Your task to perform on an android device: turn off smart reply in the gmail app Image 0: 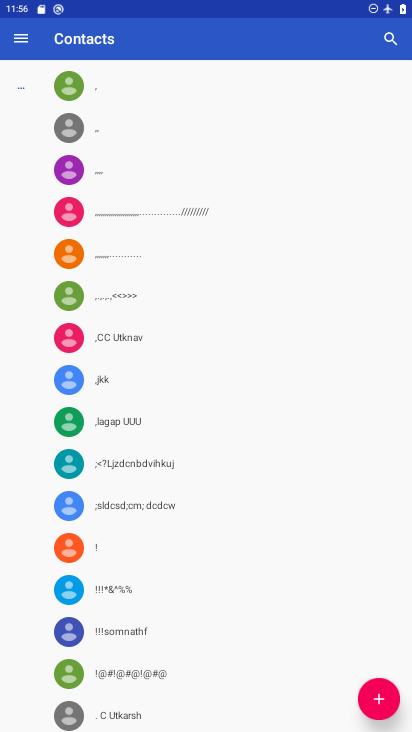
Step 0: press home button
Your task to perform on an android device: turn off smart reply in the gmail app Image 1: 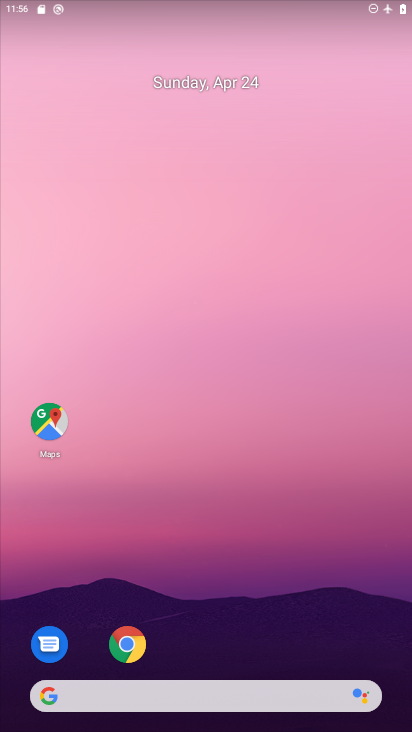
Step 1: drag from (208, 647) to (283, 4)
Your task to perform on an android device: turn off smart reply in the gmail app Image 2: 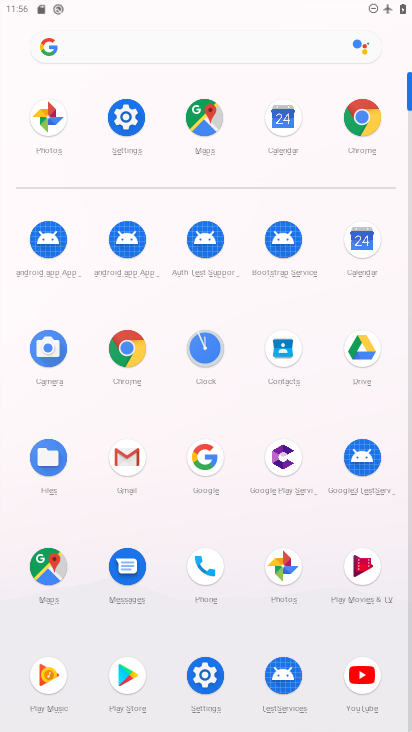
Step 2: click (115, 452)
Your task to perform on an android device: turn off smart reply in the gmail app Image 3: 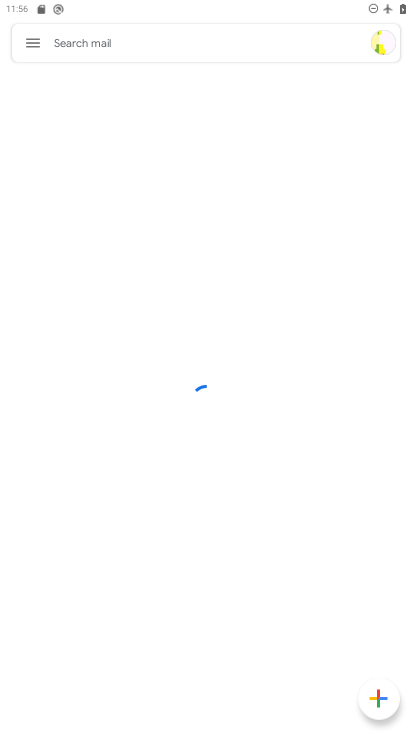
Step 3: click (29, 45)
Your task to perform on an android device: turn off smart reply in the gmail app Image 4: 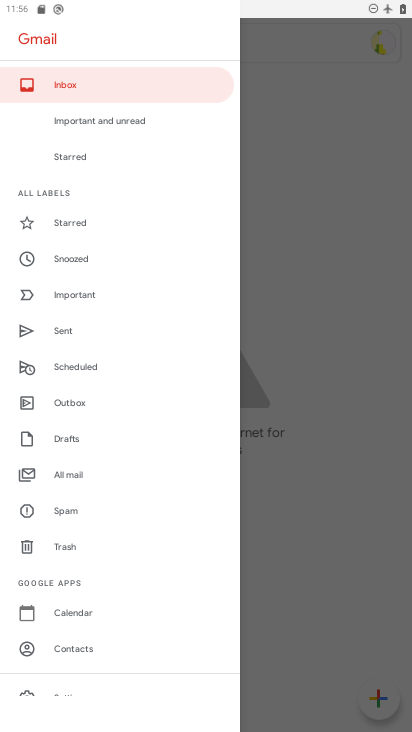
Step 4: drag from (84, 638) to (165, 247)
Your task to perform on an android device: turn off smart reply in the gmail app Image 5: 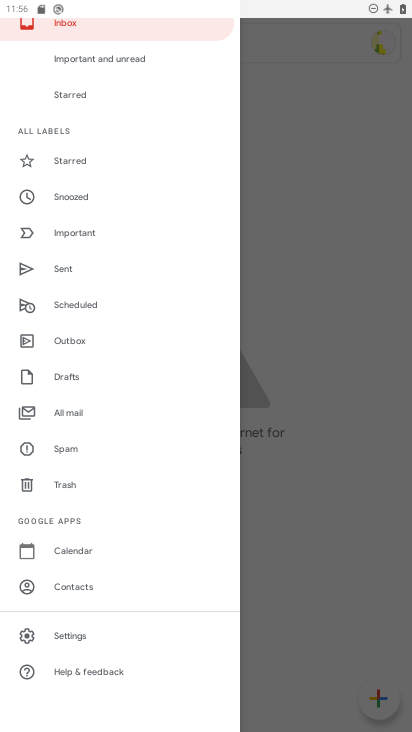
Step 5: click (74, 639)
Your task to perform on an android device: turn off smart reply in the gmail app Image 6: 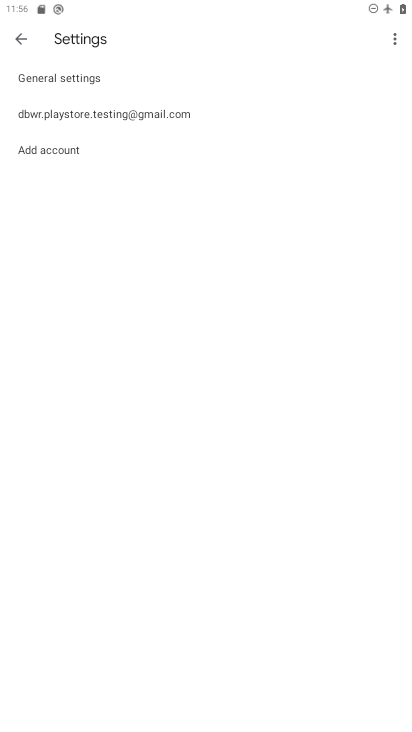
Step 6: click (82, 117)
Your task to perform on an android device: turn off smart reply in the gmail app Image 7: 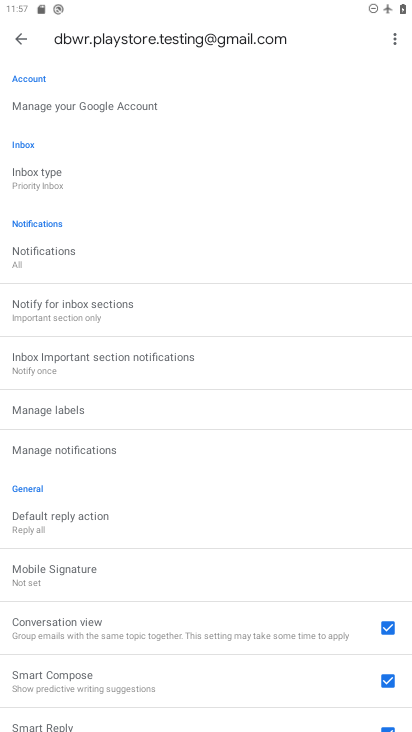
Step 7: drag from (168, 602) to (198, 359)
Your task to perform on an android device: turn off smart reply in the gmail app Image 8: 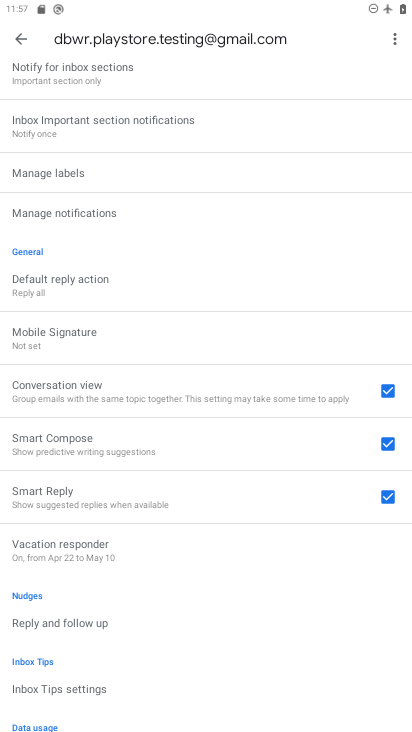
Step 8: click (370, 486)
Your task to perform on an android device: turn off smart reply in the gmail app Image 9: 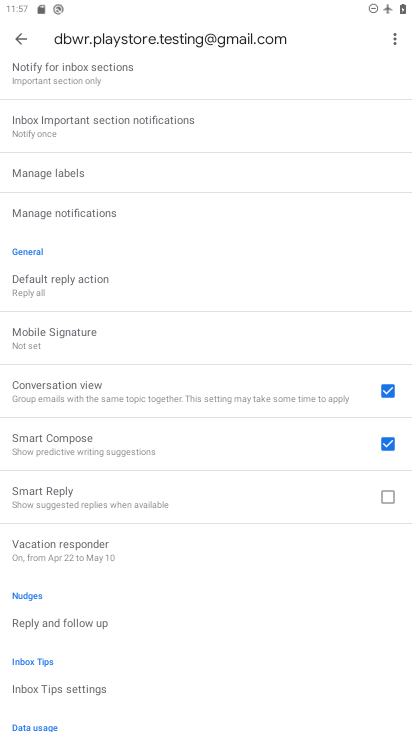
Step 9: task complete